Your task to perform on an android device: Go to ESPN.com Image 0: 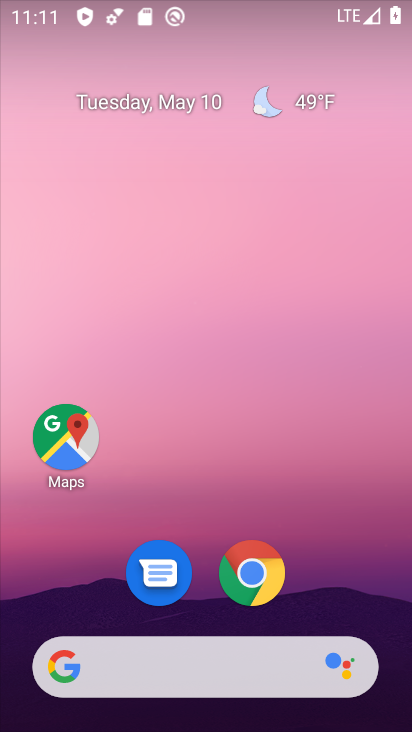
Step 0: drag from (144, 666) to (264, 198)
Your task to perform on an android device: Go to ESPN.com Image 1: 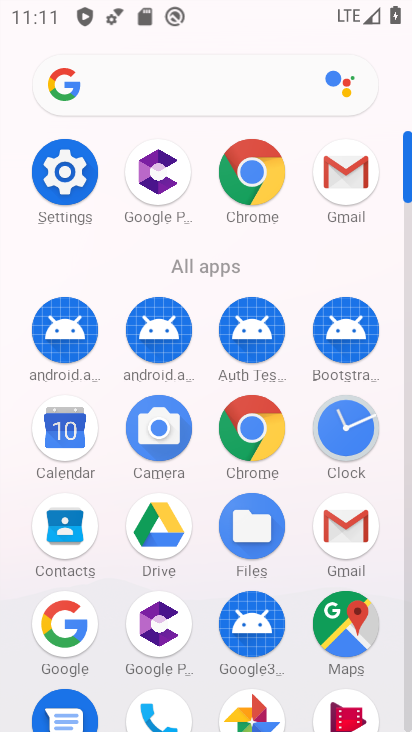
Step 1: click (265, 176)
Your task to perform on an android device: Go to ESPN.com Image 2: 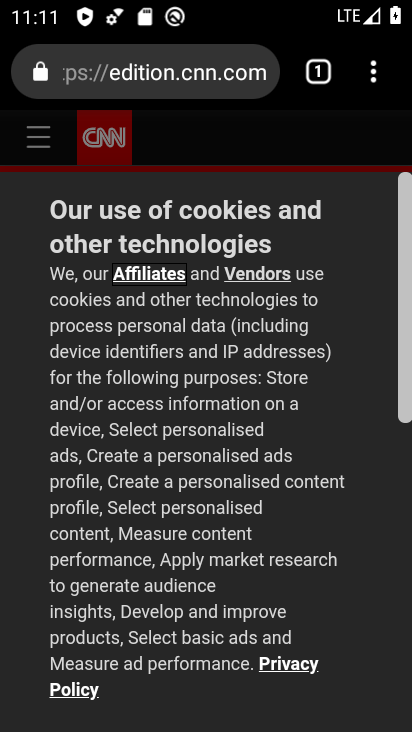
Step 2: drag from (370, 85) to (221, 136)
Your task to perform on an android device: Go to ESPN.com Image 3: 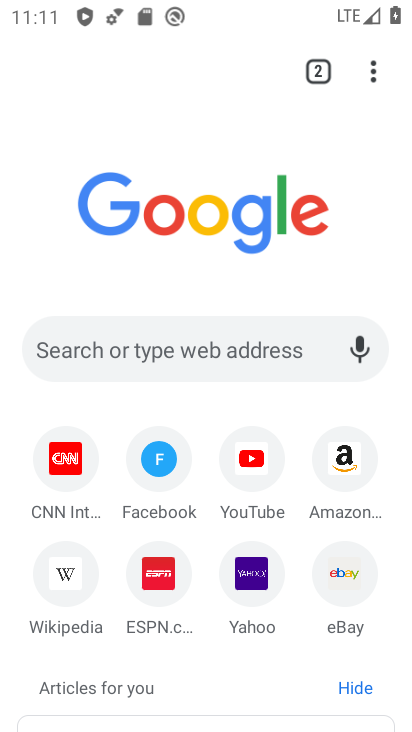
Step 3: click (163, 583)
Your task to perform on an android device: Go to ESPN.com Image 4: 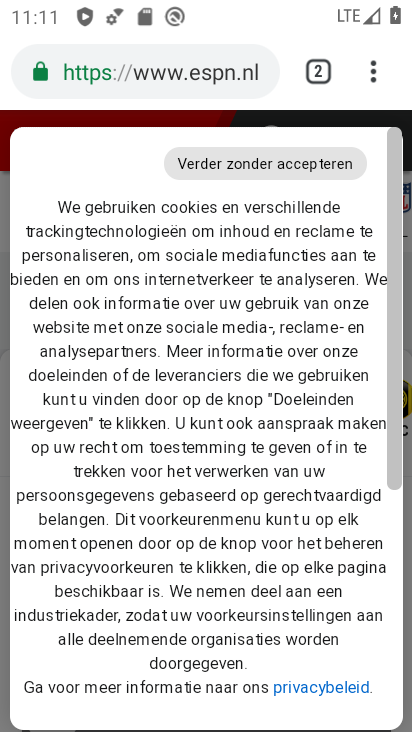
Step 4: task complete